Your task to perform on an android device: Show me the alarms in the clock app Image 0: 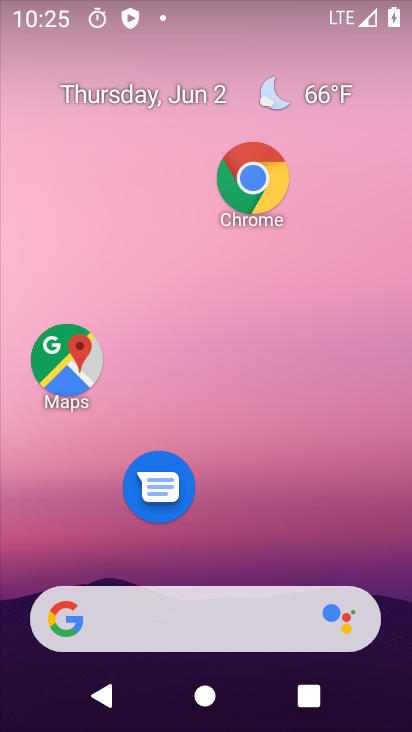
Step 0: drag from (232, 725) to (227, 159)
Your task to perform on an android device: Show me the alarms in the clock app Image 1: 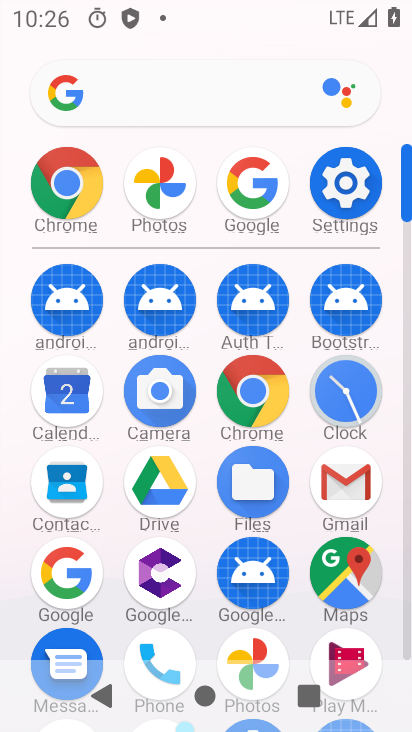
Step 1: click (338, 394)
Your task to perform on an android device: Show me the alarms in the clock app Image 2: 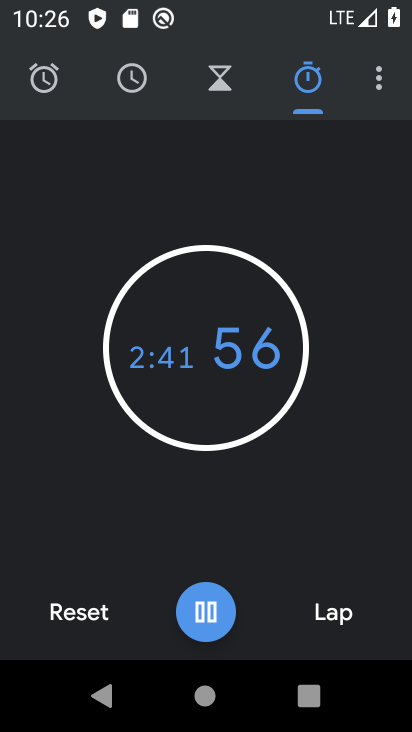
Step 2: click (47, 81)
Your task to perform on an android device: Show me the alarms in the clock app Image 3: 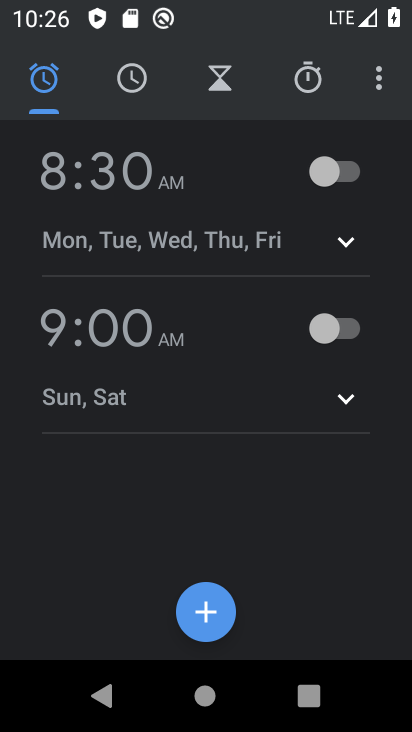
Step 3: task complete